Your task to perform on an android device: Go to location settings Image 0: 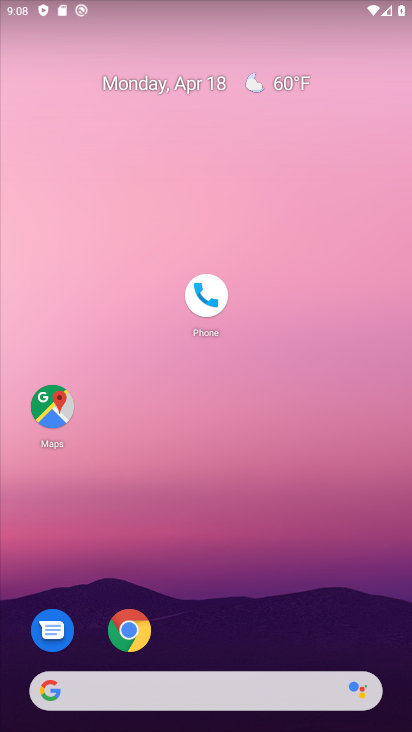
Step 0: drag from (261, 580) to (322, 96)
Your task to perform on an android device: Go to location settings Image 1: 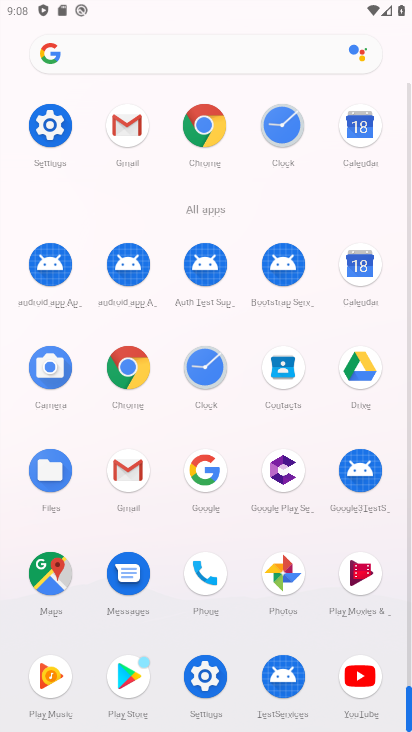
Step 1: click (44, 133)
Your task to perform on an android device: Go to location settings Image 2: 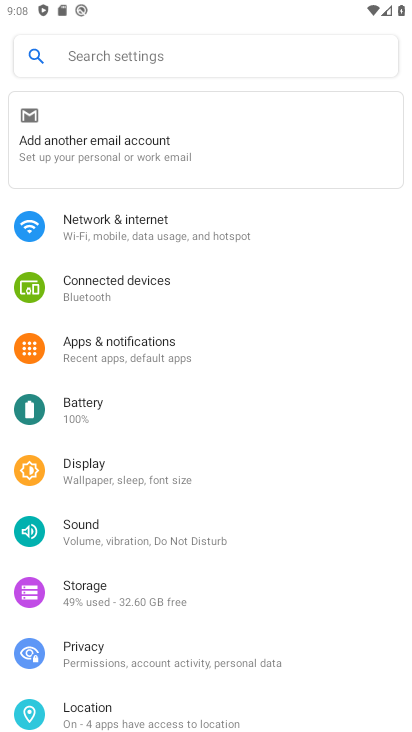
Step 2: click (120, 715)
Your task to perform on an android device: Go to location settings Image 3: 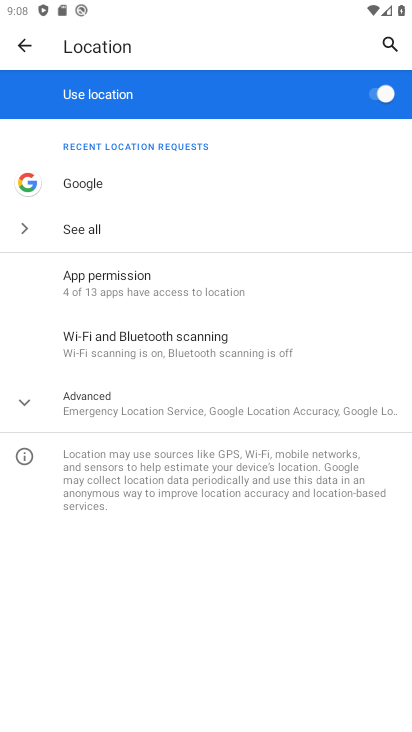
Step 3: click (105, 410)
Your task to perform on an android device: Go to location settings Image 4: 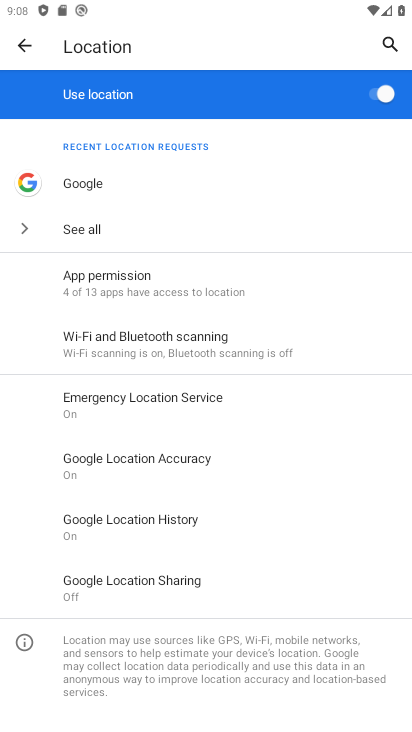
Step 4: task complete